Your task to perform on an android device: delete the emails in spam in the gmail app Image 0: 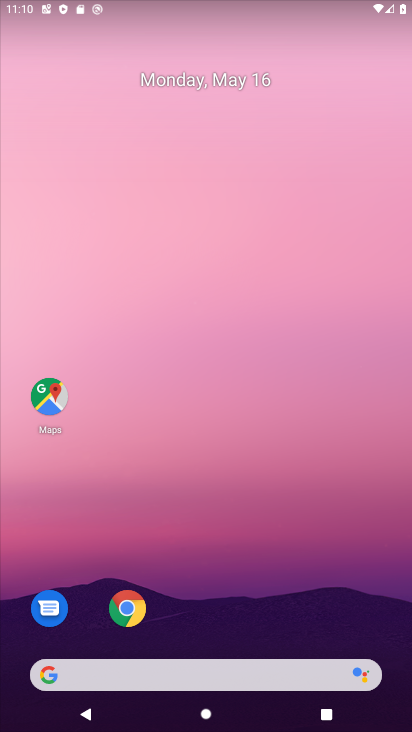
Step 0: press home button
Your task to perform on an android device: delete the emails in spam in the gmail app Image 1: 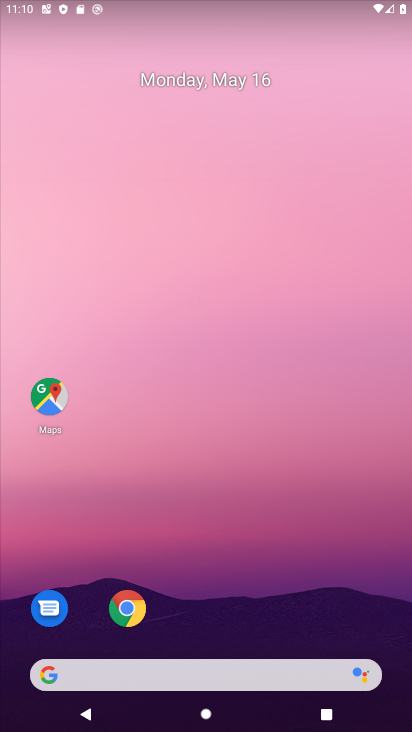
Step 1: drag from (216, 643) to (222, 248)
Your task to perform on an android device: delete the emails in spam in the gmail app Image 2: 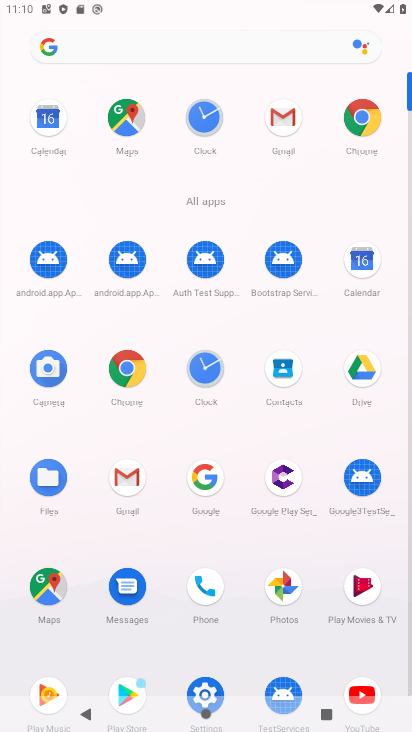
Step 2: click (281, 132)
Your task to perform on an android device: delete the emails in spam in the gmail app Image 3: 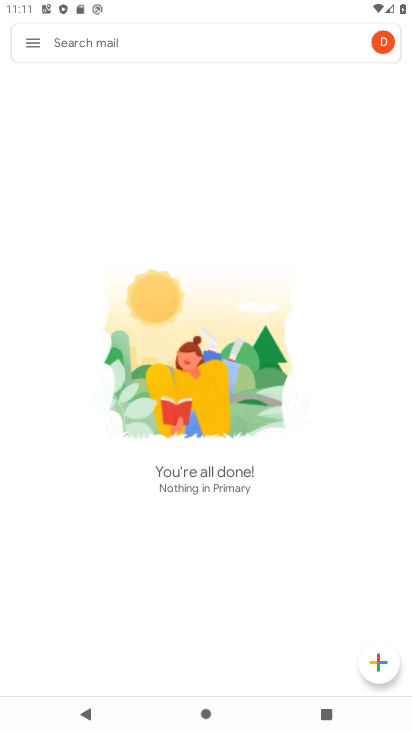
Step 3: click (41, 41)
Your task to perform on an android device: delete the emails in spam in the gmail app Image 4: 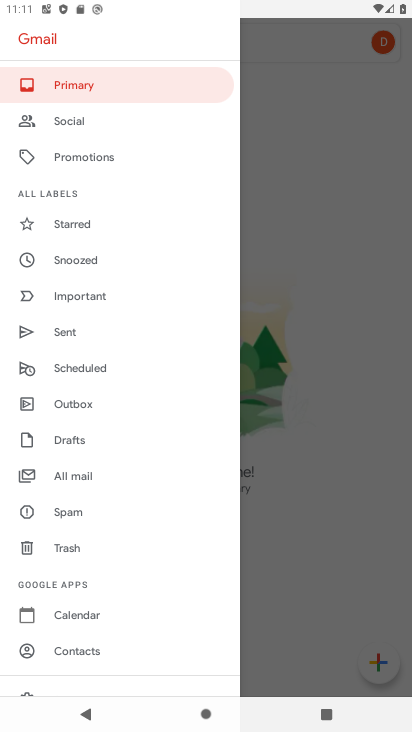
Step 4: click (65, 516)
Your task to perform on an android device: delete the emails in spam in the gmail app Image 5: 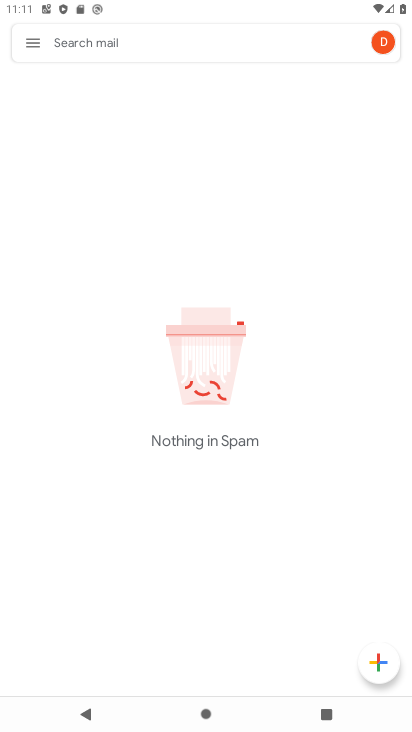
Step 5: task complete